Your task to perform on an android device: toggle show notifications on the lock screen Image 0: 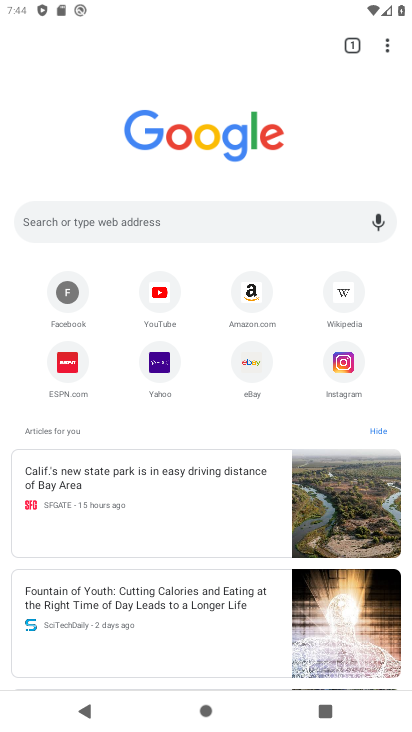
Step 0: press home button
Your task to perform on an android device: toggle show notifications on the lock screen Image 1: 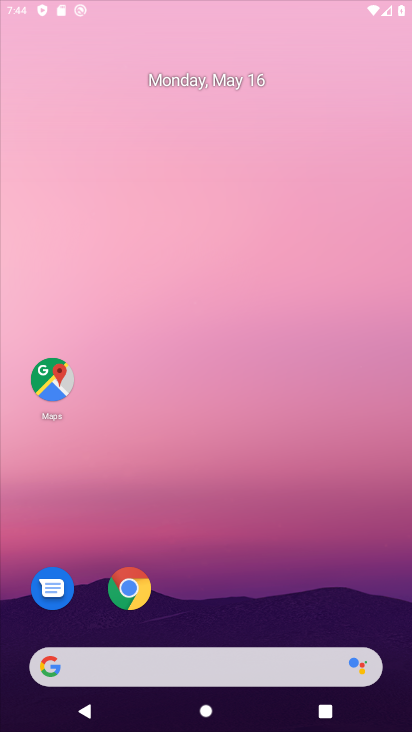
Step 1: drag from (254, 245) to (249, 148)
Your task to perform on an android device: toggle show notifications on the lock screen Image 2: 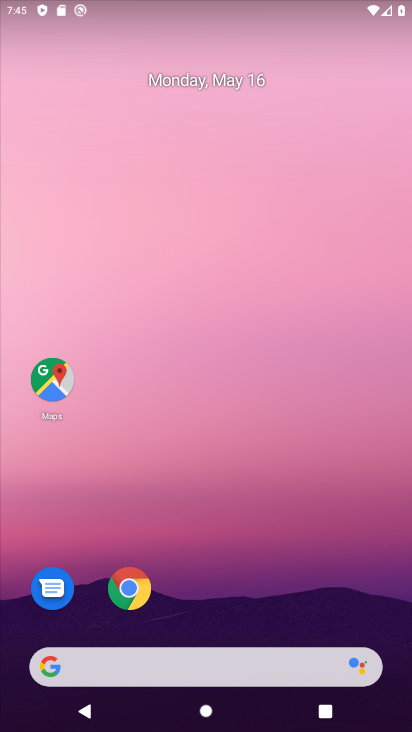
Step 2: drag from (270, 584) to (250, 80)
Your task to perform on an android device: toggle show notifications on the lock screen Image 3: 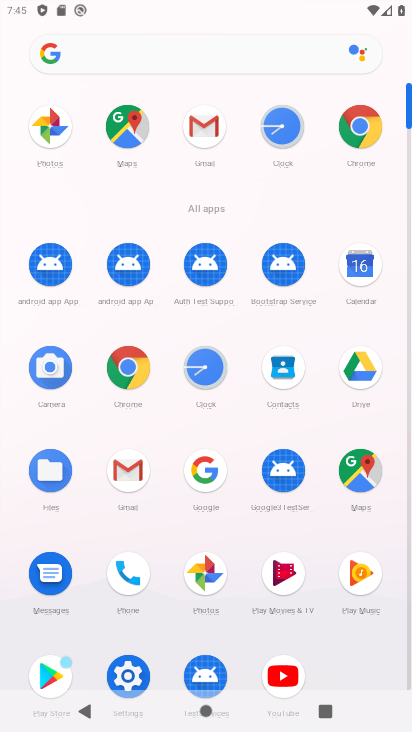
Step 3: click (118, 676)
Your task to perform on an android device: toggle show notifications on the lock screen Image 4: 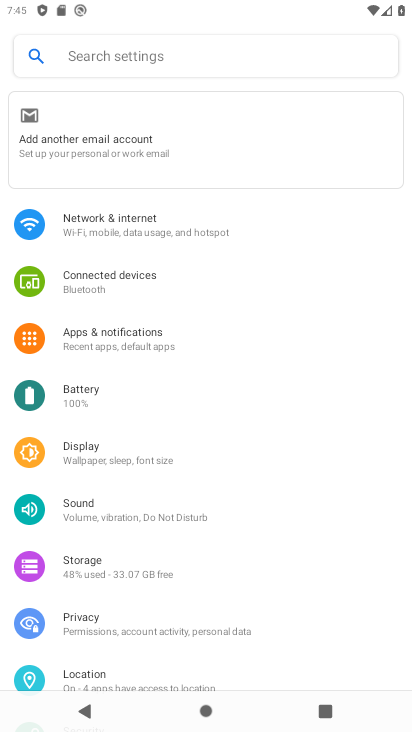
Step 4: click (115, 331)
Your task to perform on an android device: toggle show notifications on the lock screen Image 5: 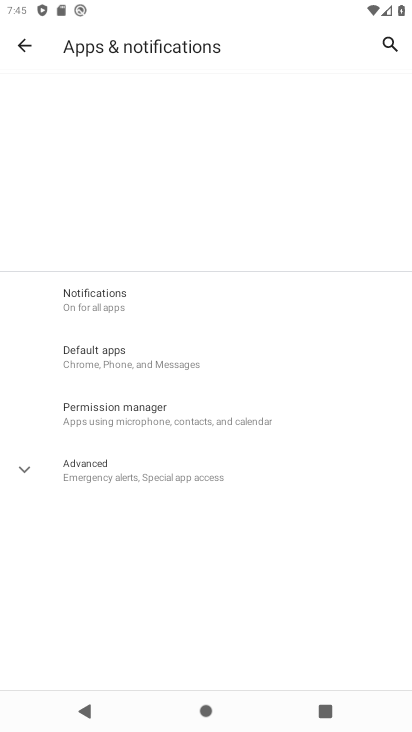
Step 5: click (94, 304)
Your task to perform on an android device: toggle show notifications on the lock screen Image 6: 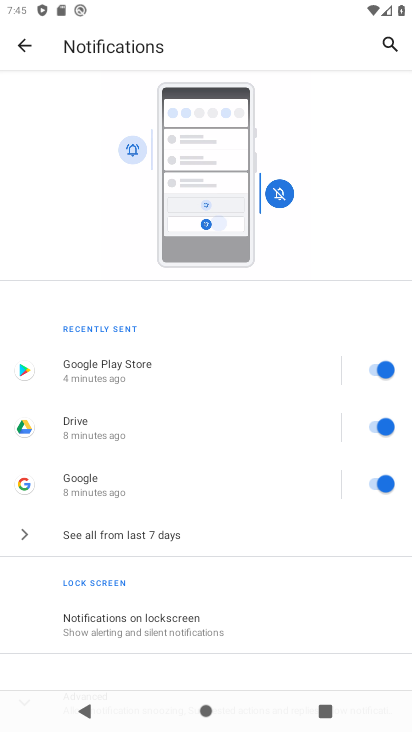
Step 6: drag from (250, 522) to (251, 127)
Your task to perform on an android device: toggle show notifications on the lock screen Image 7: 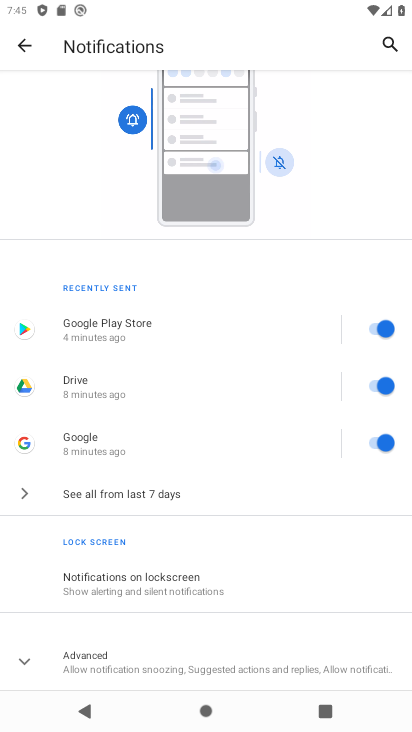
Step 7: click (102, 663)
Your task to perform on an android device: toggle show notifications on the lock screen Image 8: 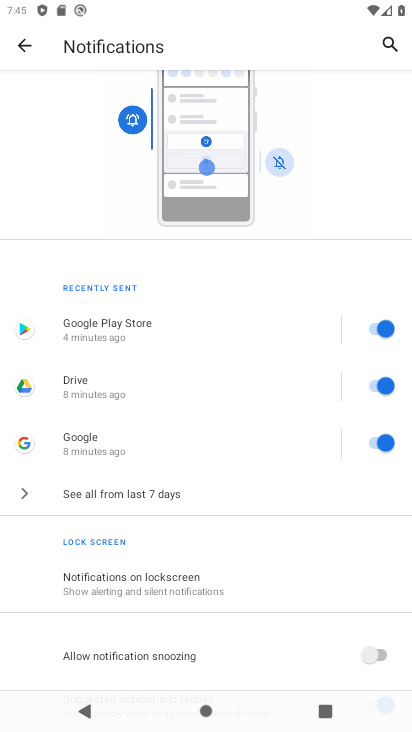
Step 8: click (125, 571)
Your task to perform on an android device: toggle show notifications on the lock screen Image 9: 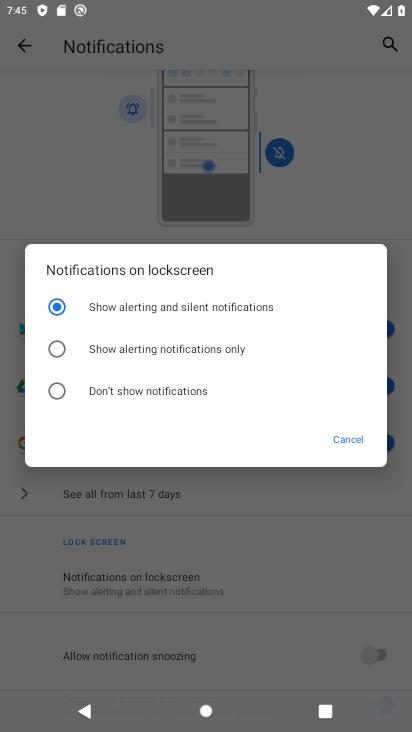
Step 9: click (171, 341)
Your task to perform on an android device: toggle show notifications on the lock screen Image 10: 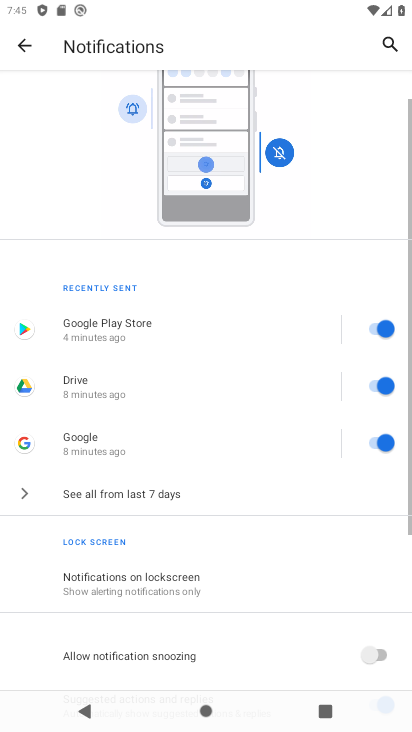
Step 10: task complete